Your task to perform on an android device: uninstall "HBO Max: Stream TV & Movies" Image 0: 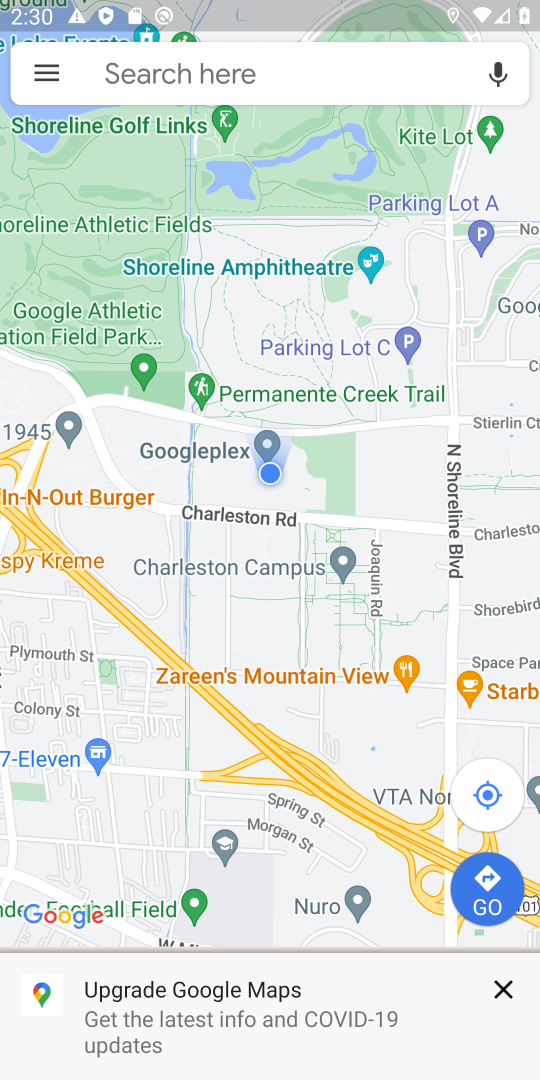
Step 0: press home button
Your task to perform on an android device: uninstall "HBO Max: Stream TV & Movies" Image 1: 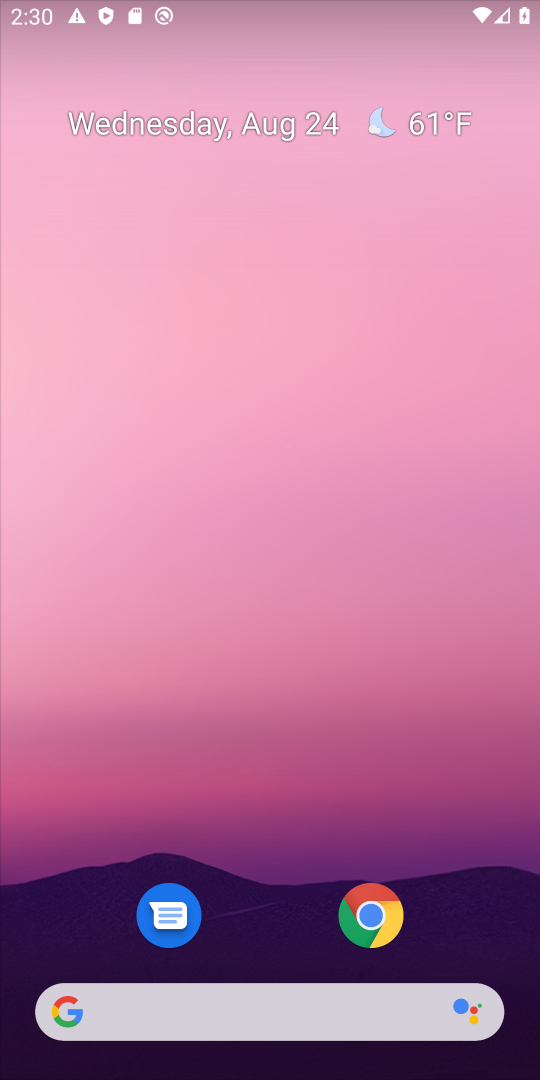
Step 1: drag from (268, 797) to (247, 120)
Your task to perform on an android device: uninstall "HBO Max: Stream TV & Movies" Image 2: 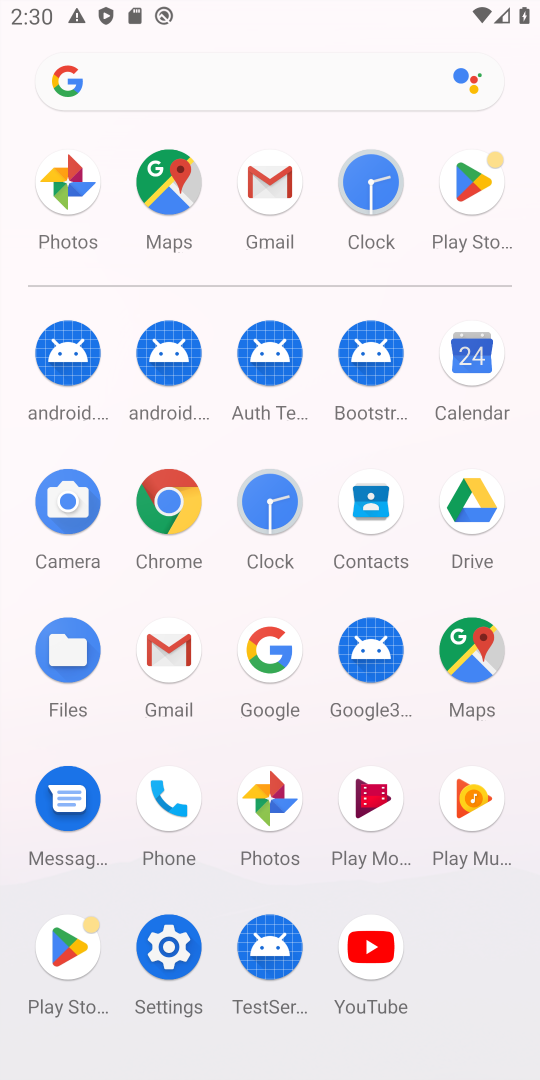
Step 2: click (466, 195)
Your task to perform on an android device: uninstall "HBO Max: Stream TV & Movies" Image 3: 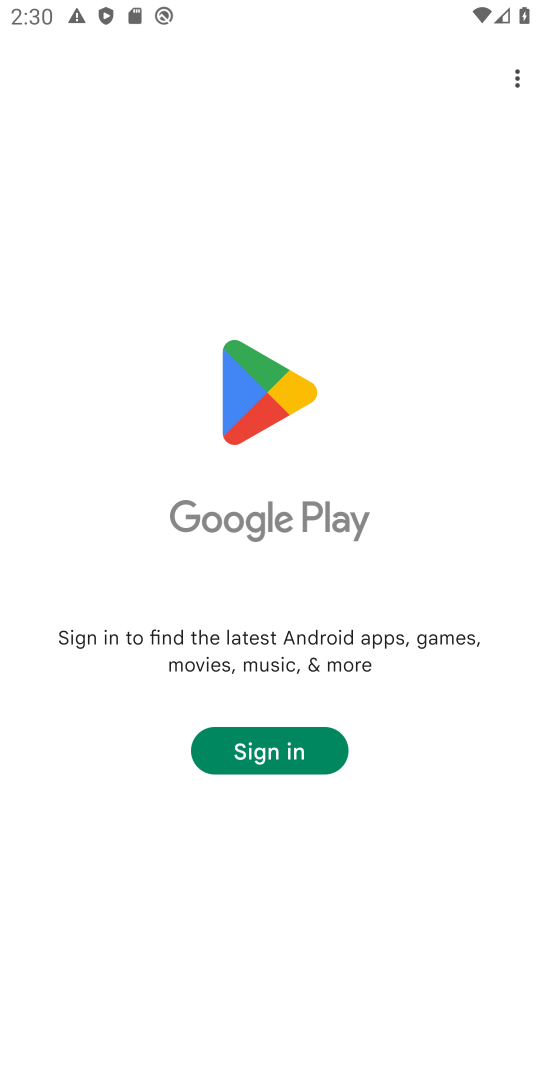
Step 3: task complete